Your task to perform on an android device: set the timer Image 0: 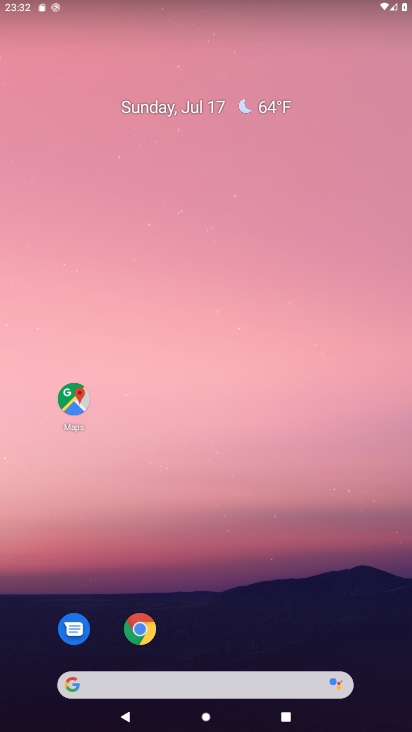
Step 0: drag from (208, 681) to (192, 444)
Your task to perform on an android device: set the timer Image 1: 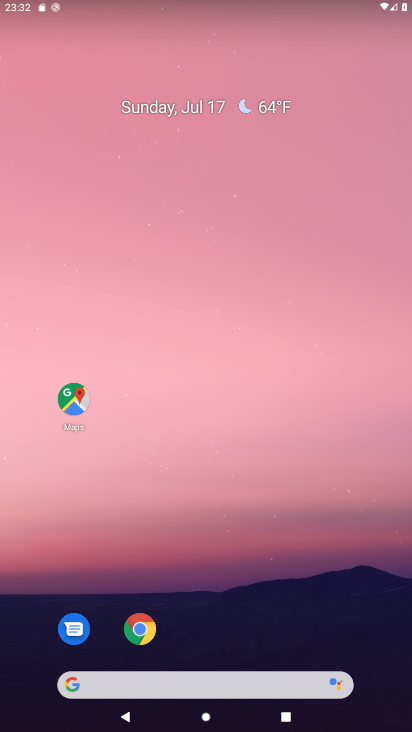
Step 1: drag from (223, 650) to (213, 236)
Your task to perform on an android device: set the timer Image 2: 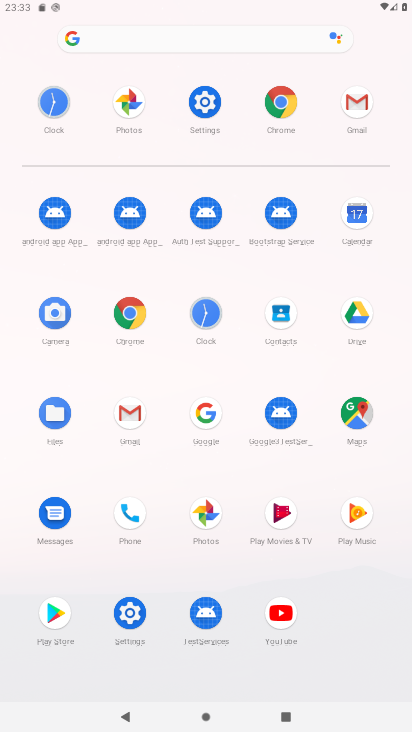
Step 2: click (206, 313)
Your task to perform on an android device: set the timer Image 3: 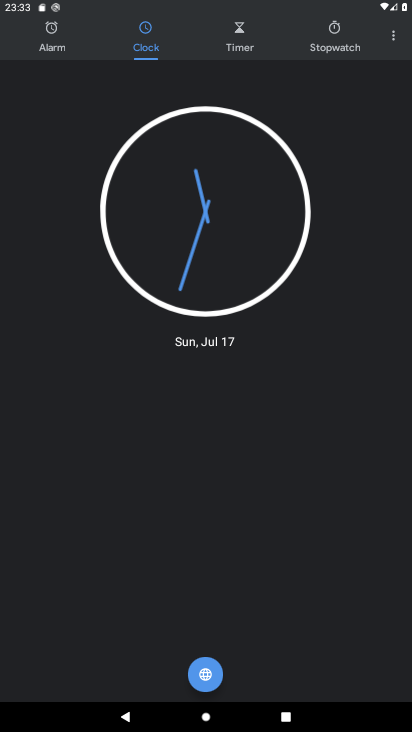
Step 3: click (240, 56)
Your task to perform on an android device: set the timer Image 4: 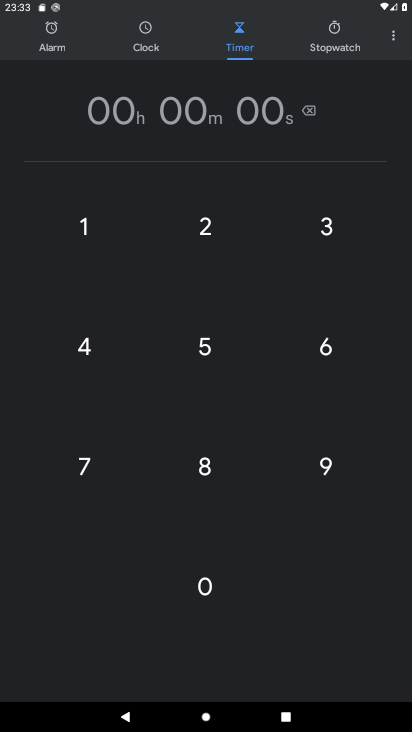
Step 4: click (212, 110)
Your task to perform on an android device: set the timer Image 5: 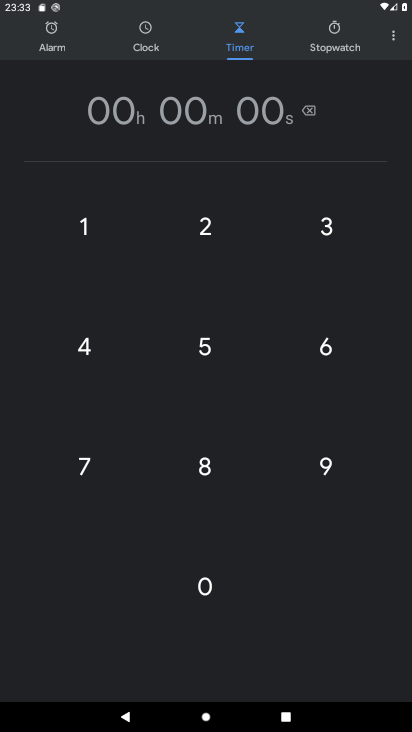
Step 5: type "989988989 "
Your task to perform on an android device: set the timer Image 6: 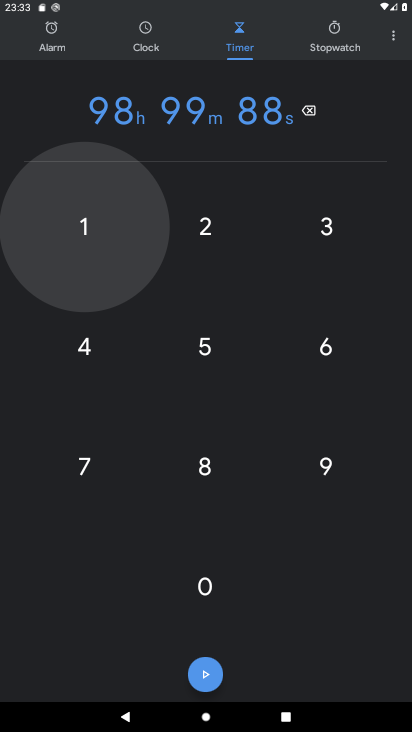
Step 6: click (206, 682)
Your task to perform on an android device: set the timer Image 7: 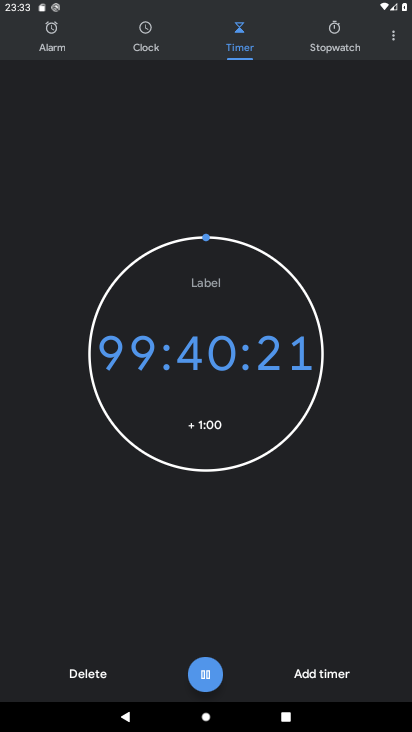
Step 7: click (204, 678)
Your task to perform on an android device: set the timer Image 8: 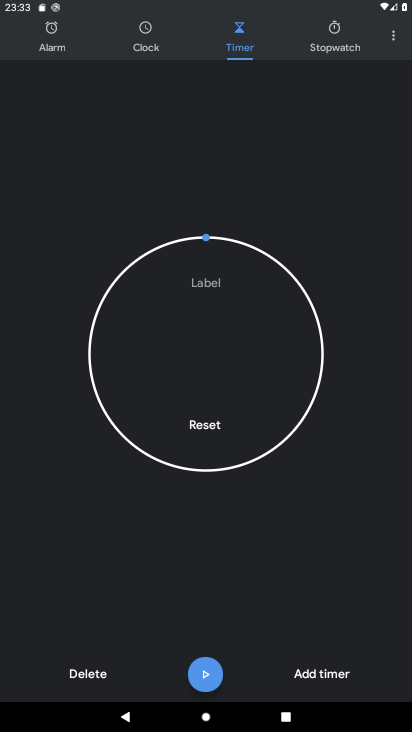
Step 8: task complete